Your task to perform on an android device: Open Google Maps and go to "Timeline" Image 0: 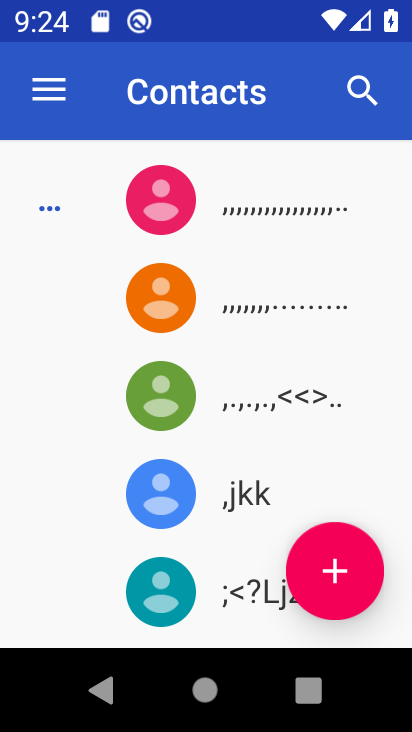
Step 0: press home button
Your task to perform on an android device: Open Google Maps and go to "Timeline" Image 1: 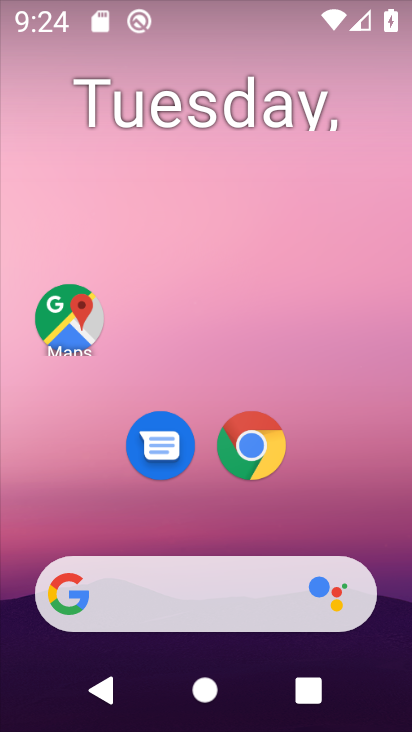
Step 1: drag from (391, 535) to (361, 340)
Your task to perform on an android device: Open Google Maps and go to "Timeline" Image 2: 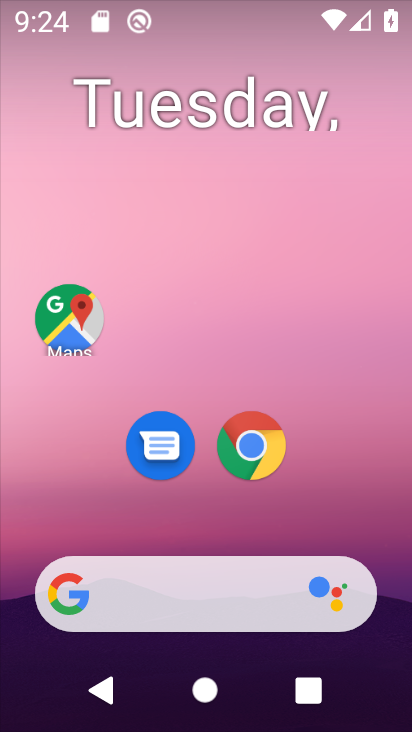
Step 2: drag from (391, 580) to (324, 159)
Your task to perform on an android device: Open Google Maps and go to "Timeline" Image 3: 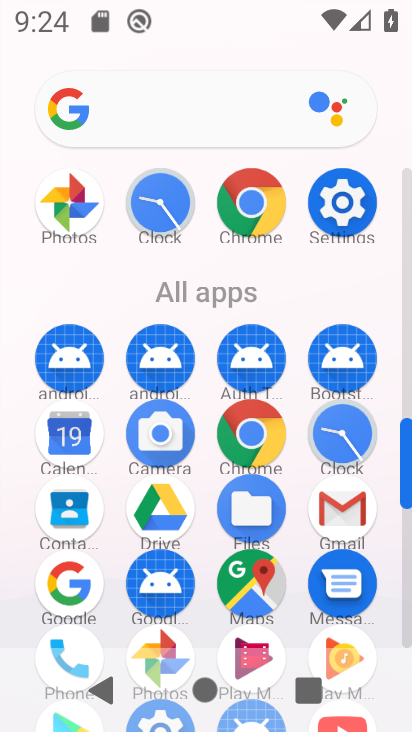
Step 3: click (328, 200)
Your task to perform on an android device: Open Google Maps and go to "Timeline" Image 4: 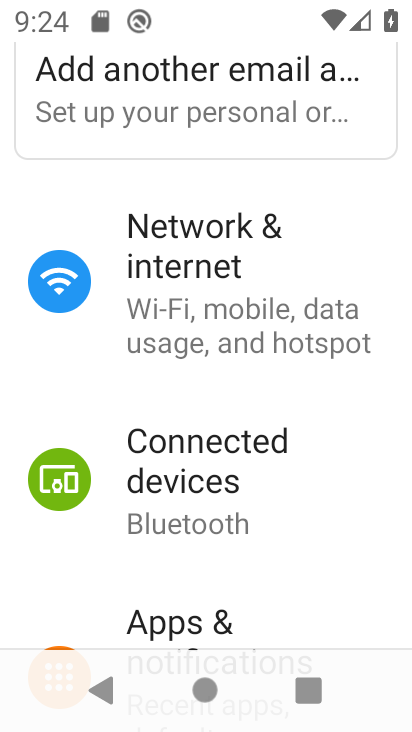
Step 4: press home button
Your task to perform on an android device: Open Google Maps and go to "Timeline" Image 5: 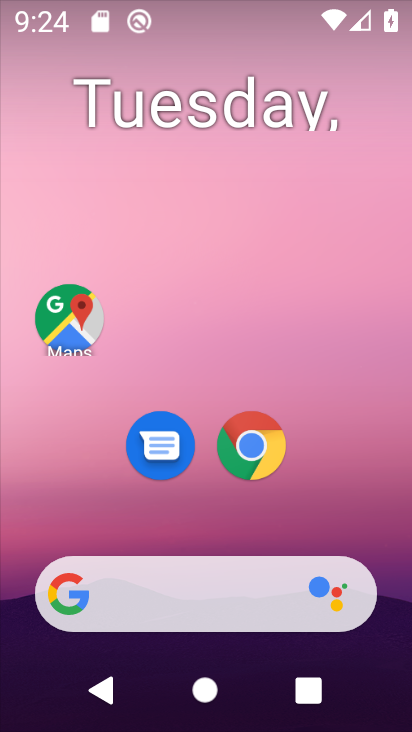
Step 5: click (65, 318)
Your task to perform on an android device: Open Google Maps and go to "Timeline" Image 6: 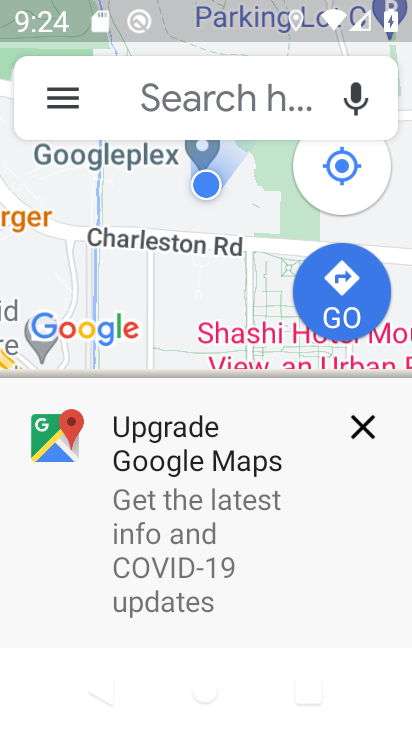
Step 6: click (42, 93)
Your task to perform on an android device: Open Google Maps and go to "Timeline" Image 7: 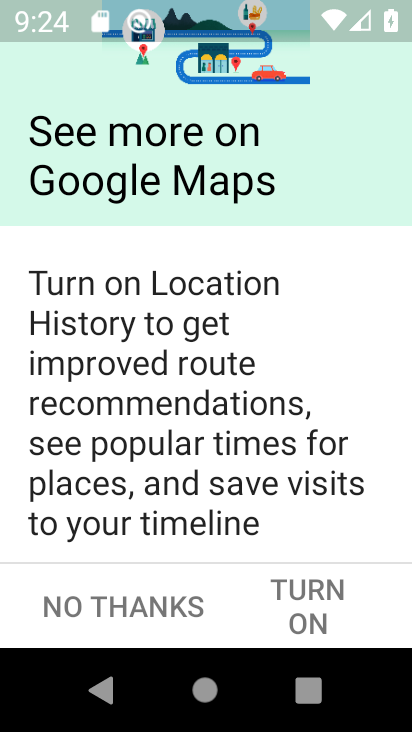
Step 7: click (310, 597)
Your task to perform on an android device: Open Google Maps and go to "Timeline" Image 8: 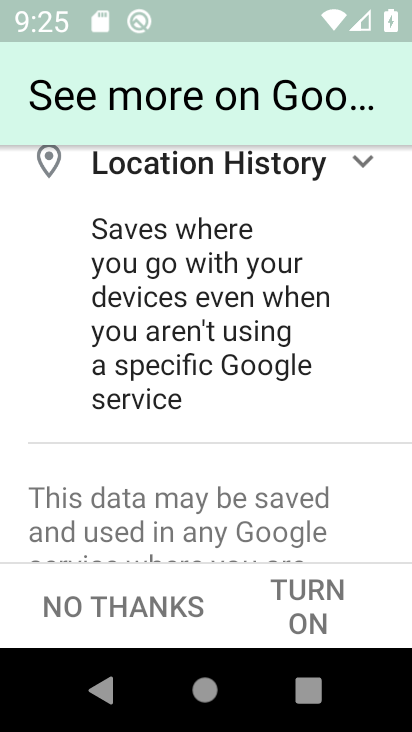
Step 8: click (308, 599)
Your task to perform on an android device: Open Google Maps and go to "Timeline" Image 9: 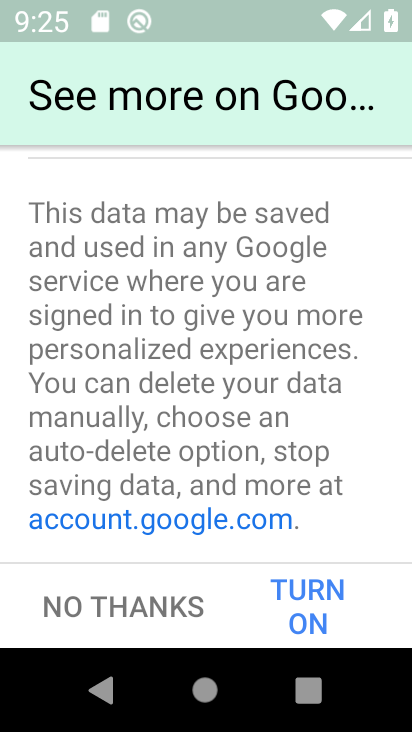
Step 9: click (308, 599)
Your task to perform on an android device: Open Google Maps and go to "Timeline" Image 10: 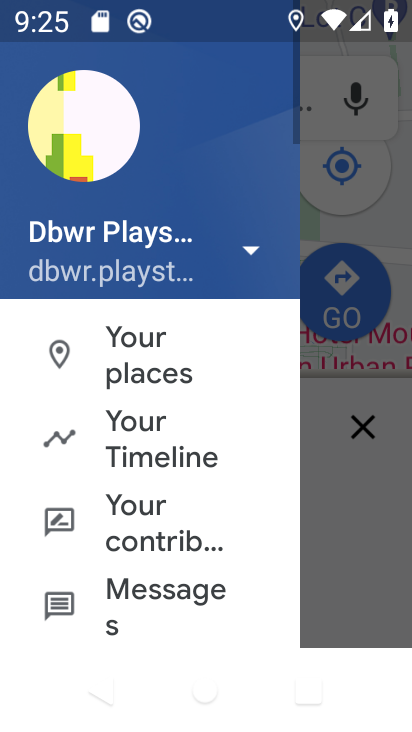
Step 10: press back button
Your task to perform on an android device: Open Google Maps and go to "Timeline" Image 11: 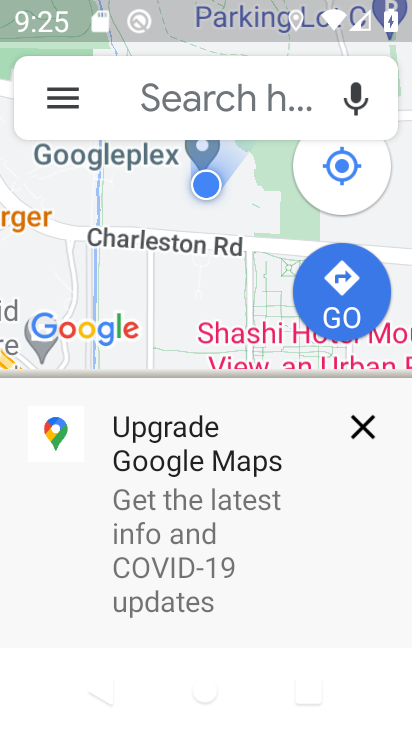
Step 11: click (57, 87)
Your task to perform on an android device: Open Google Maps and go to "Timeline" Image 12: 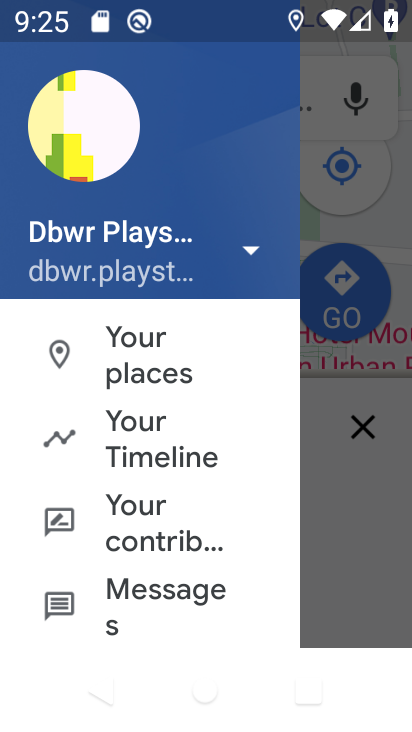
Step 12: click (117, 439)
Your task to perform on an android device: Open Google Maps and go to "Timeline" Image 13: 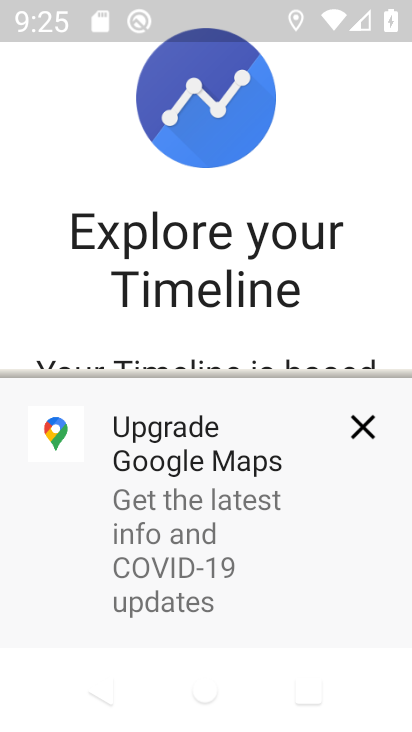
Step 13: task complete